Your task to perform on an android device: When is my next appointment? Image 0: 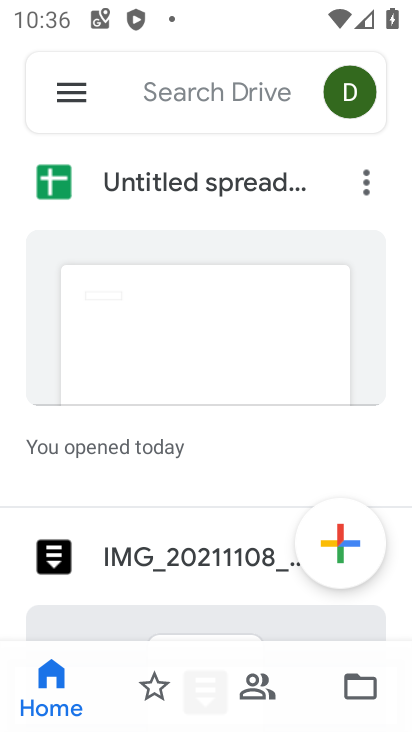
Step 0: press home button
Your task to perform on an android device: When is my next appointment? Image 1: 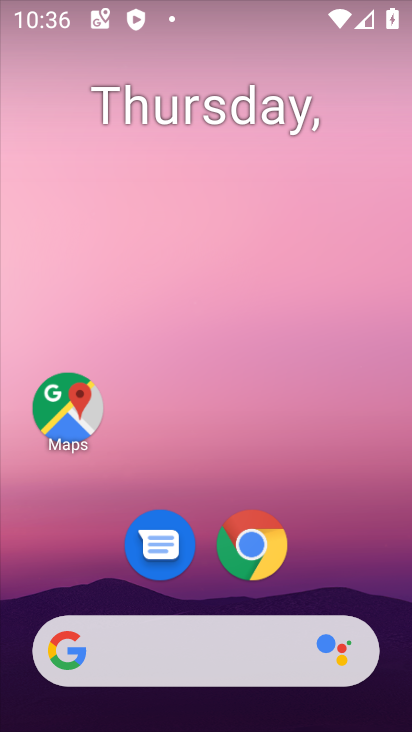
Step 1: drag from (321, 545) to (214, 191)
Your task to perform on an android device: When is my next appointment? Image 2: 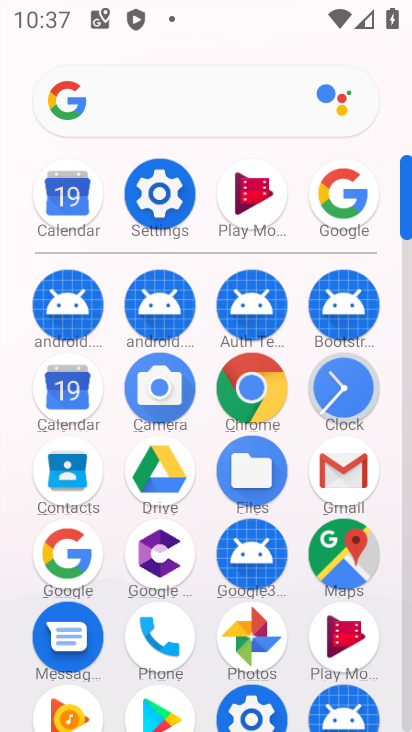
Step 2: click (70, 391)
Your task to perform on an android device: When is my next appointment? Image 3: 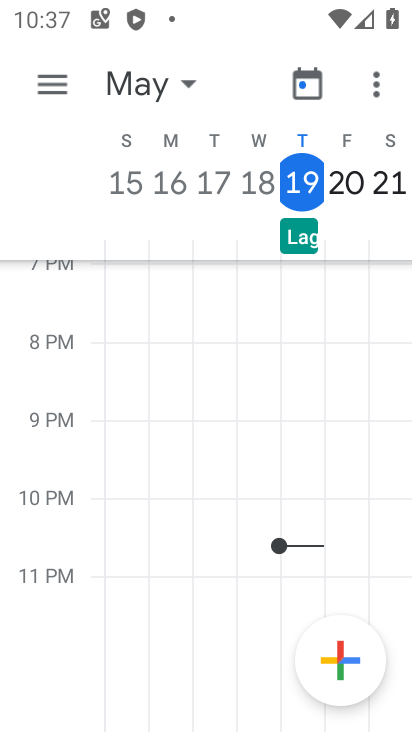
Step 3: click (313, 83)
Your task to perform on an android device: When is my next appointment? Image 4: 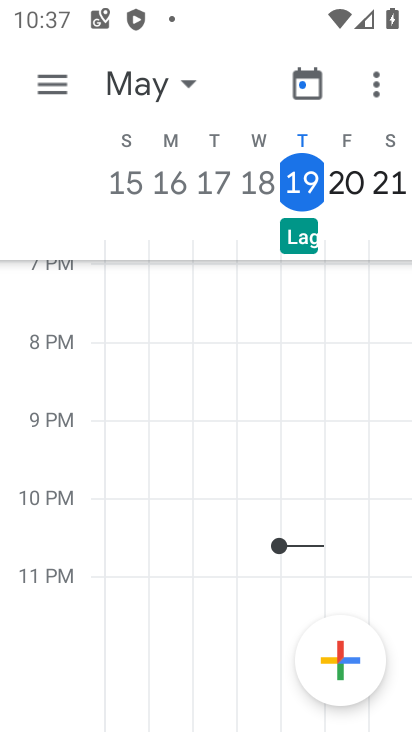
Step 4: click (190, 87)
Your task to perform on an android device: When is my next appointment? Image 5: 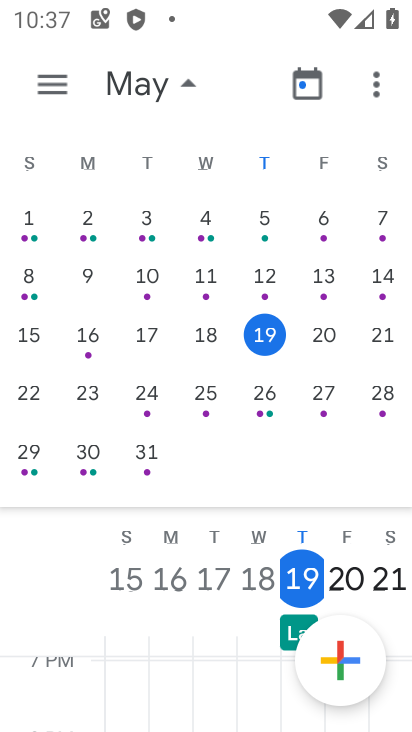
Step 5: click (151, 385)
Your task to perform on an android device: When is my next appointment? Image 6: 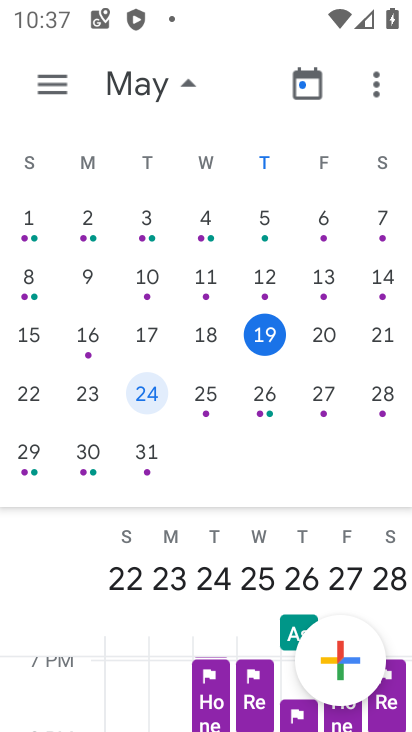
Step 6: click (52, 73)
Your task to perform on an android device: When is my next appointment? Image 7: 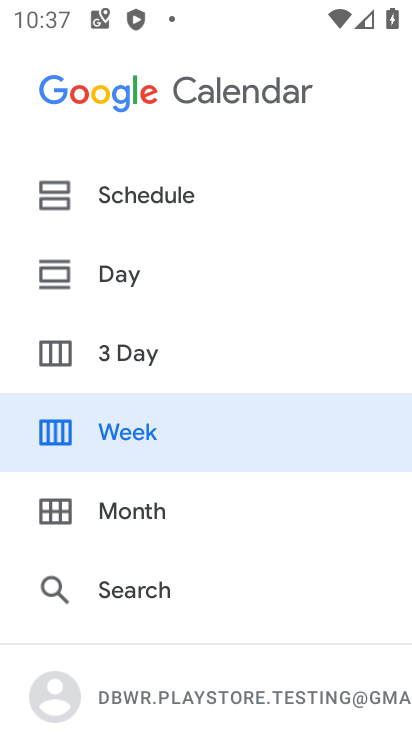
Step 7: click (155, 430)
Your task to perform on an android device: When is my next appointment? Image 8: 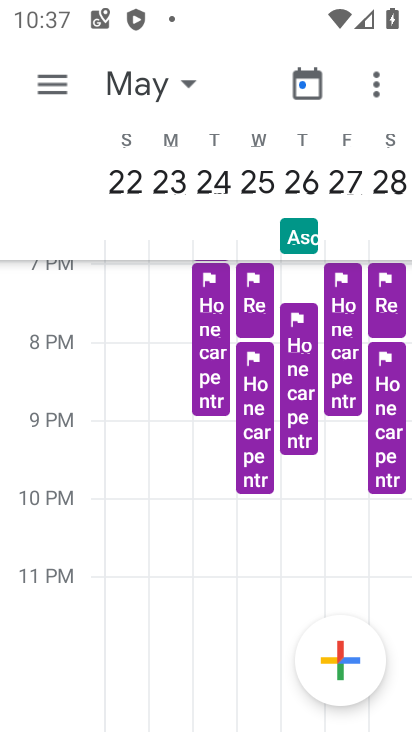
Step 8: task complete